Your task to perform on an android device: Open location settings Image 0: 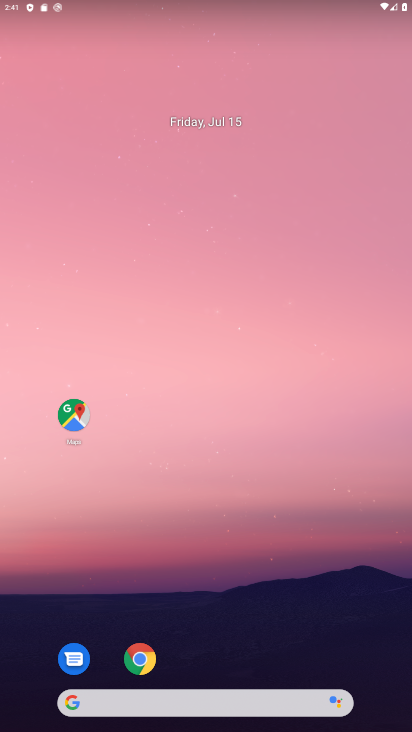
Step 0: drag from (229, 625) to (243, 144)
Your task to perform on an android device: Open location settings Image 1: 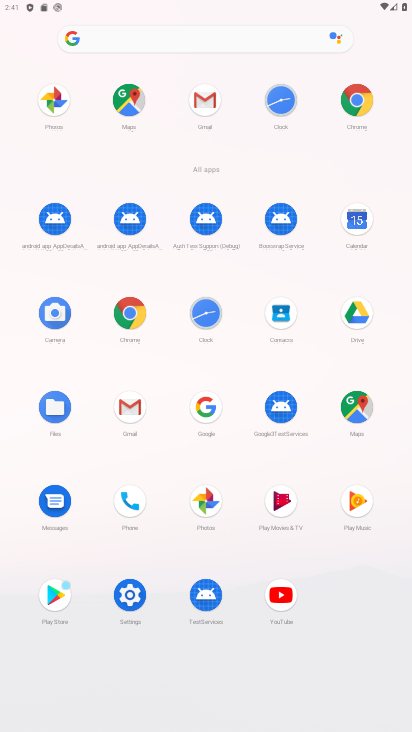
Step 1: click (138, 601)
Your task to perform on an android device: Open location settings Image 2: 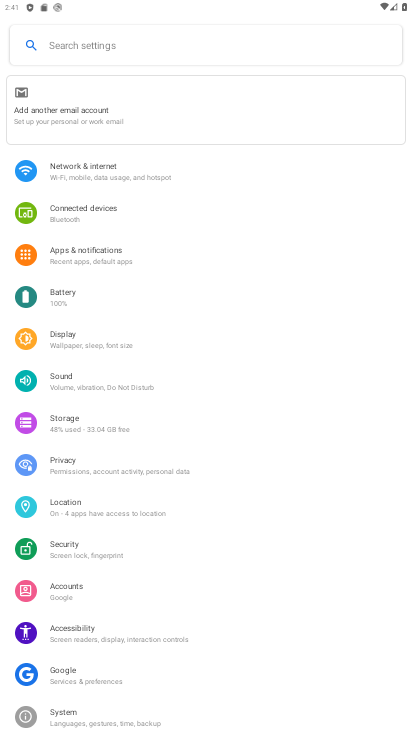
Step 2: click (101, 505)
Your task to perform on an android device: Open location settings Image 3: 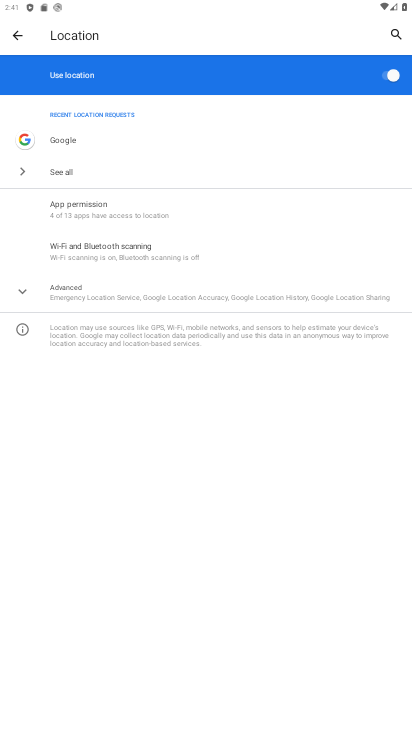
Step 3: task complete